Your task to perform on an android device: Open CNN.com Image 0: 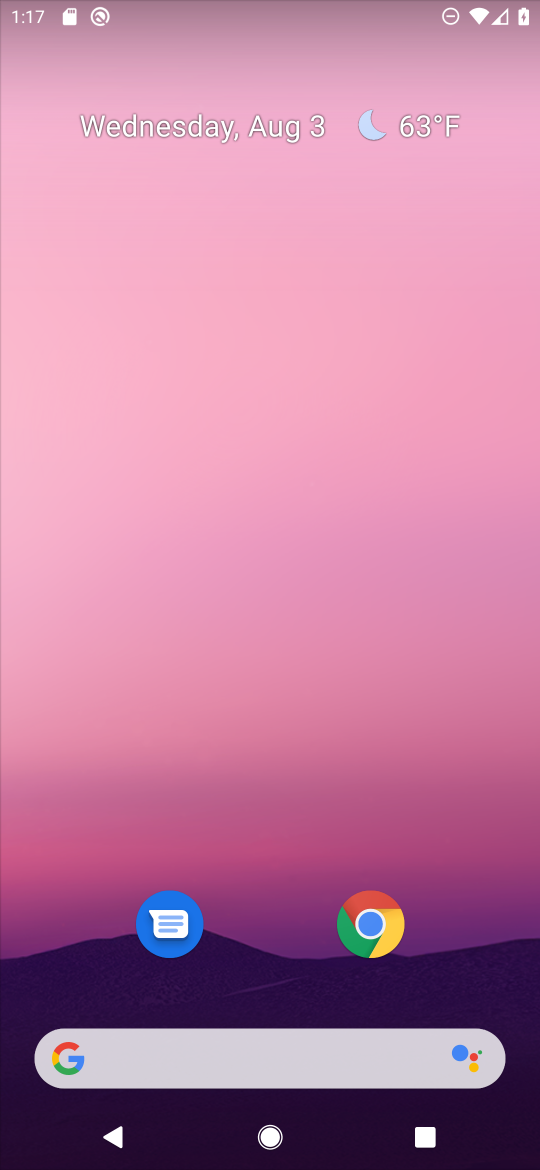
Step 0: click (375, 910)
Your task to perform on an android device: Open CNN.com Image 1: 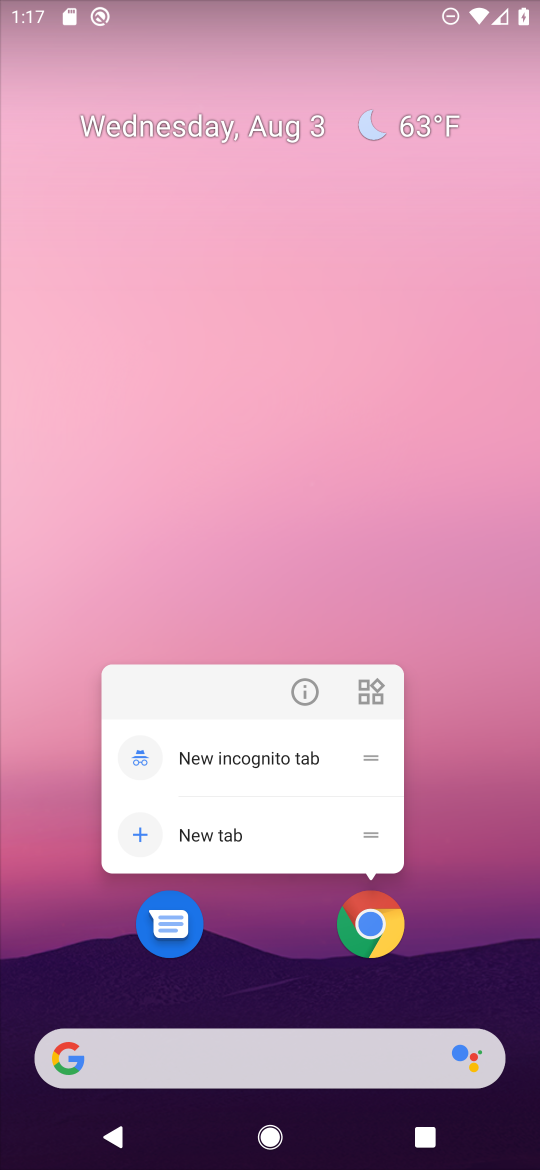
Step 1: click (383, 904)
Your task to perform on an android device: Open CNN.com Image 2: 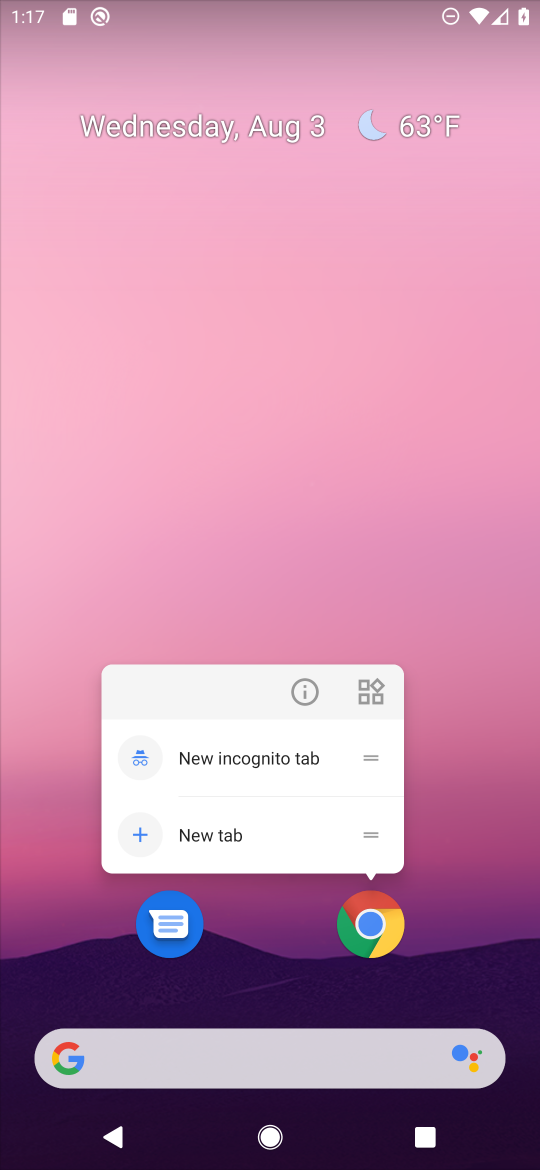
Step 2: click (384, 907)
Your task to perform on an android device: Open CNN.com Image 3: 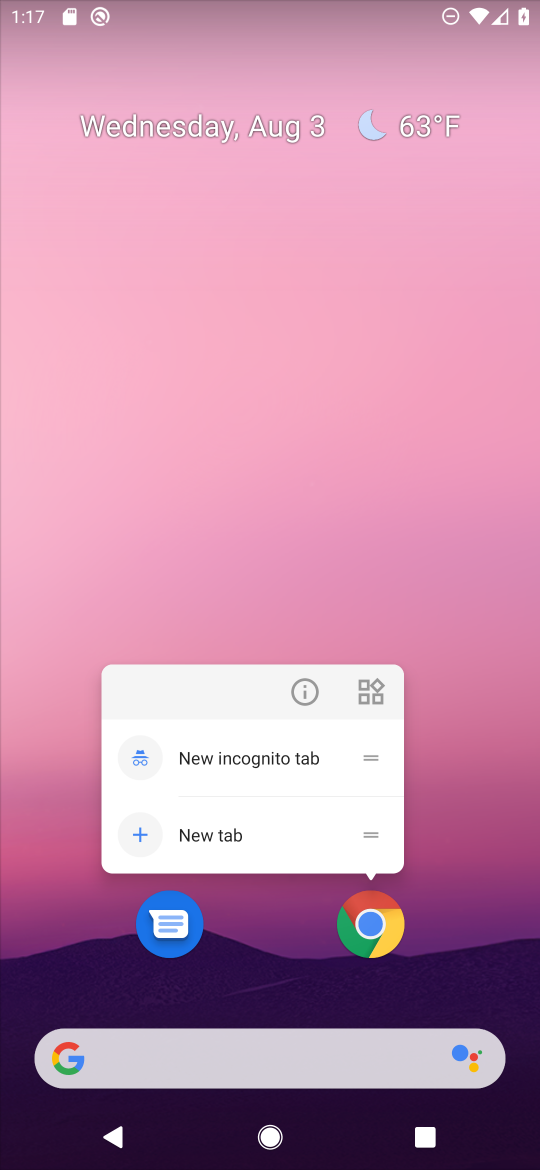
Step 3: click (370, 925)
Your task to perform on an android device: Open CNN.com Image 4: 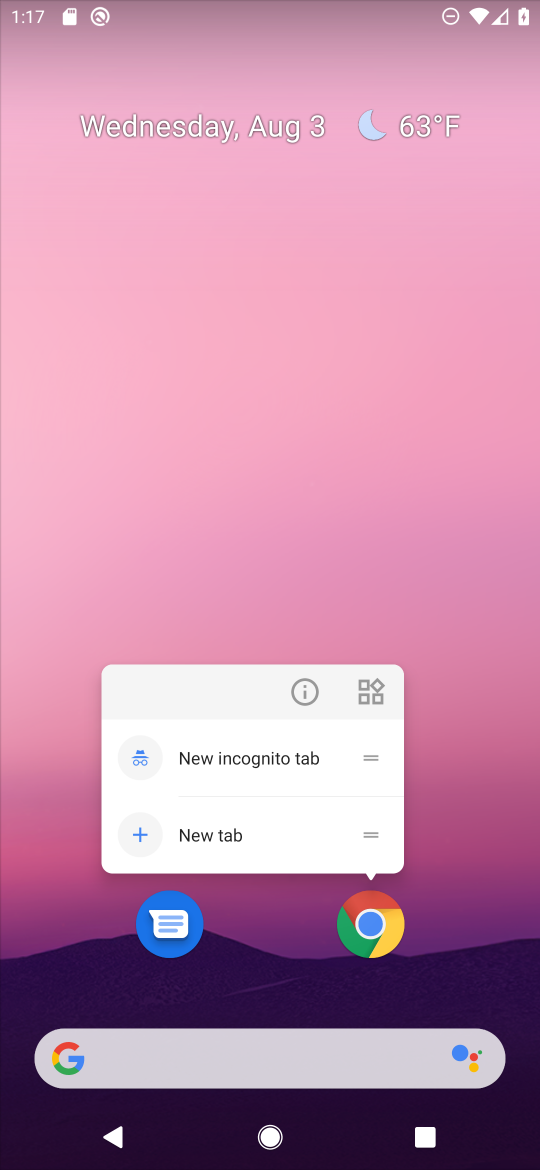
Step 4: click (375, 936)
Your task to perform on an android device: Open CNN.com Image 5: 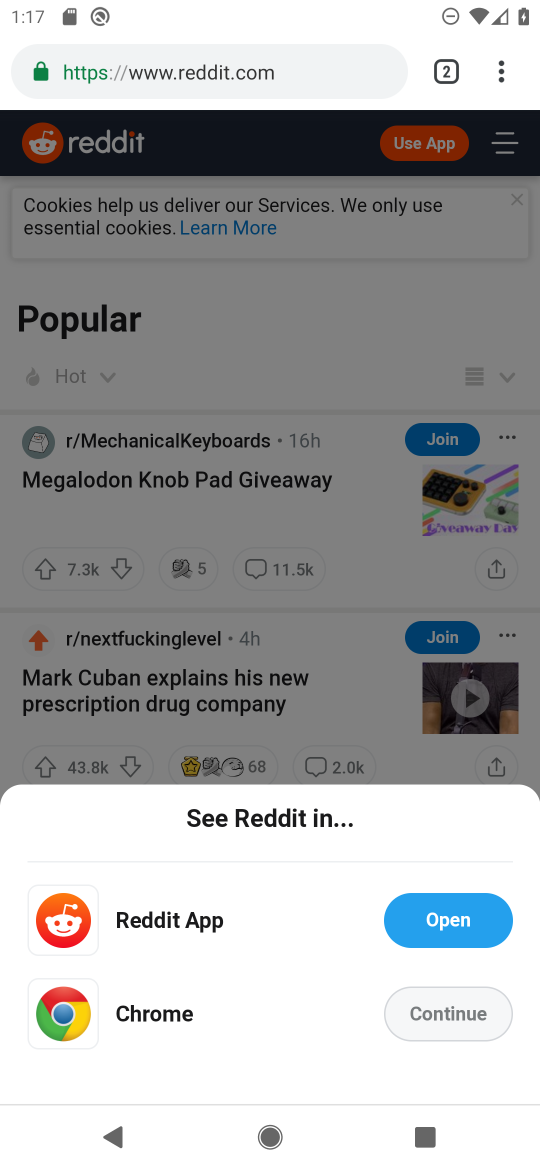
Step 5: click (262, 326)
Your task to perform on an android device: Open CNN.com Image 6: 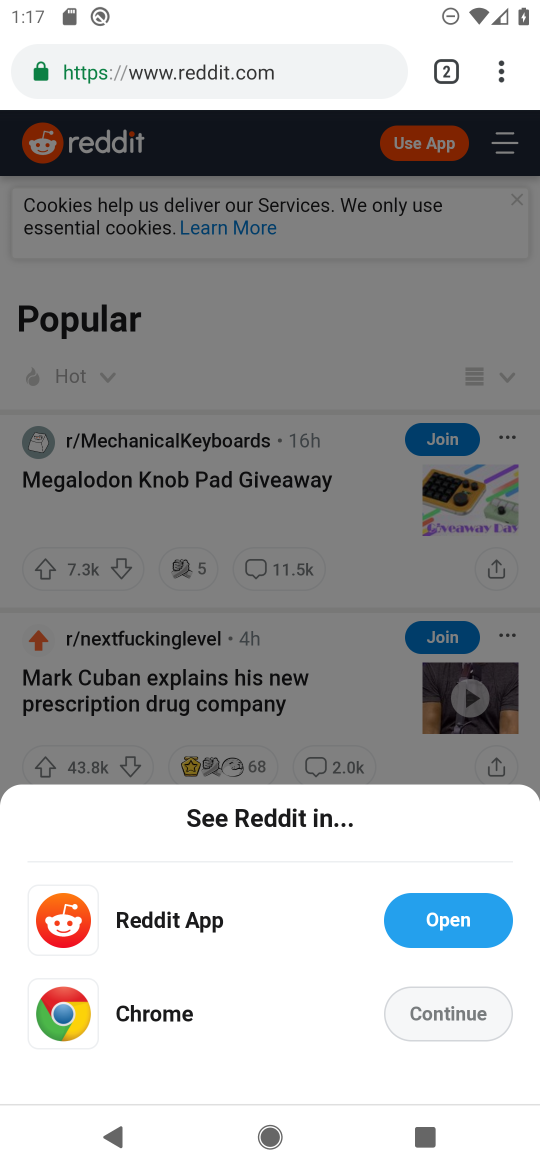
Step 6: click (440, 69)
Your task to perform on an android device: Open CNN.com Image 7: 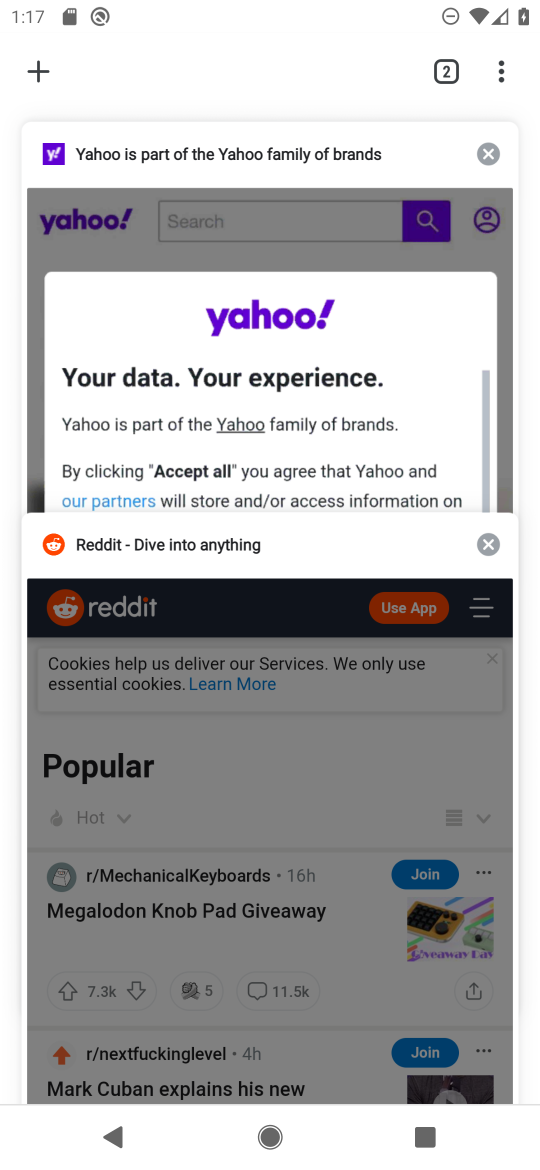
Step 7: click (28, 63)
Your task to perform on an android device: Open CNN.com Image 8: 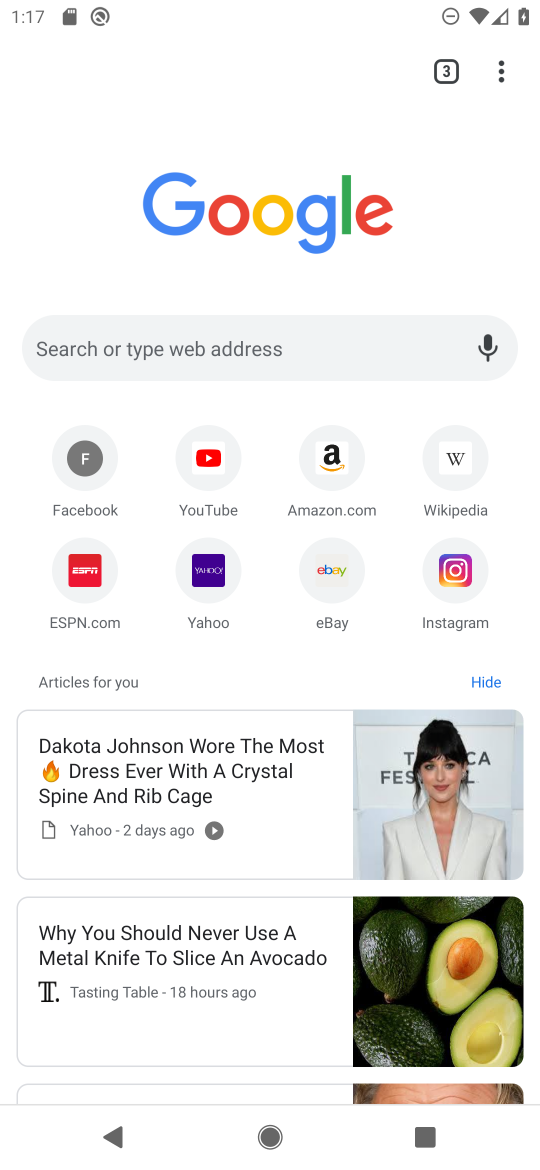
Step 8: click (170, 341)
Your task to perform on an android device: Open CNN.com Image 9: 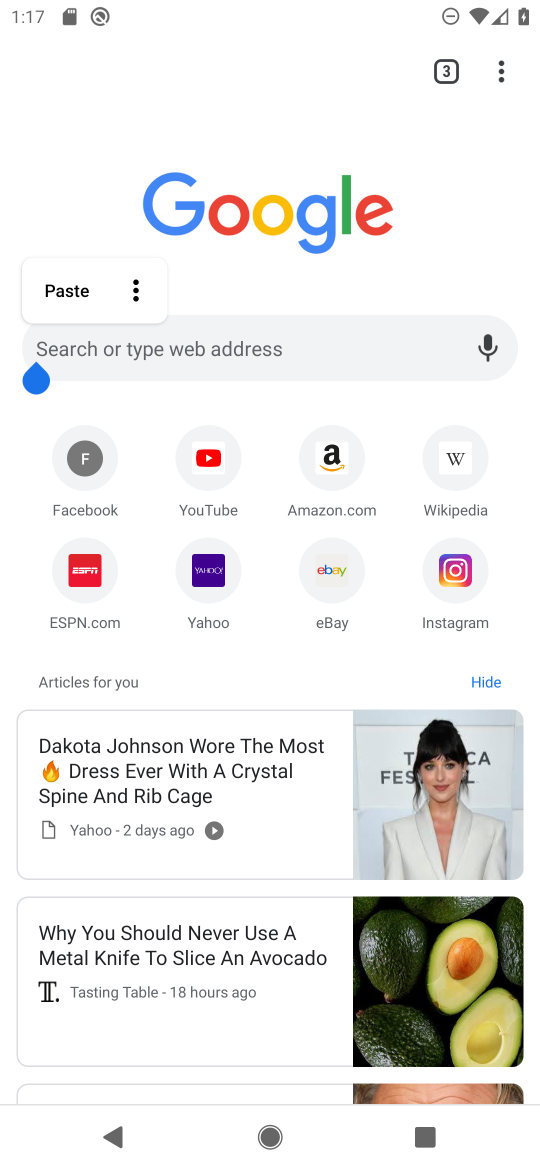
Step 9: type "cnn.com"
Your task to perform on an android device: Open CNN.com Image 10: 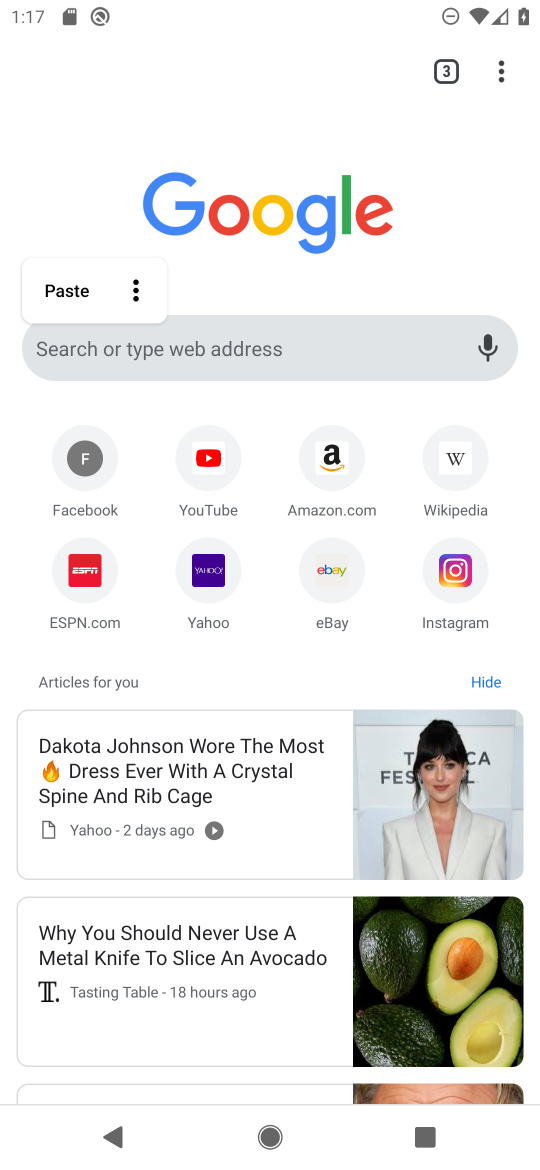
Step 10: click (286, 334)
Your task to perform on an android device: Open CNN.com Image 11: 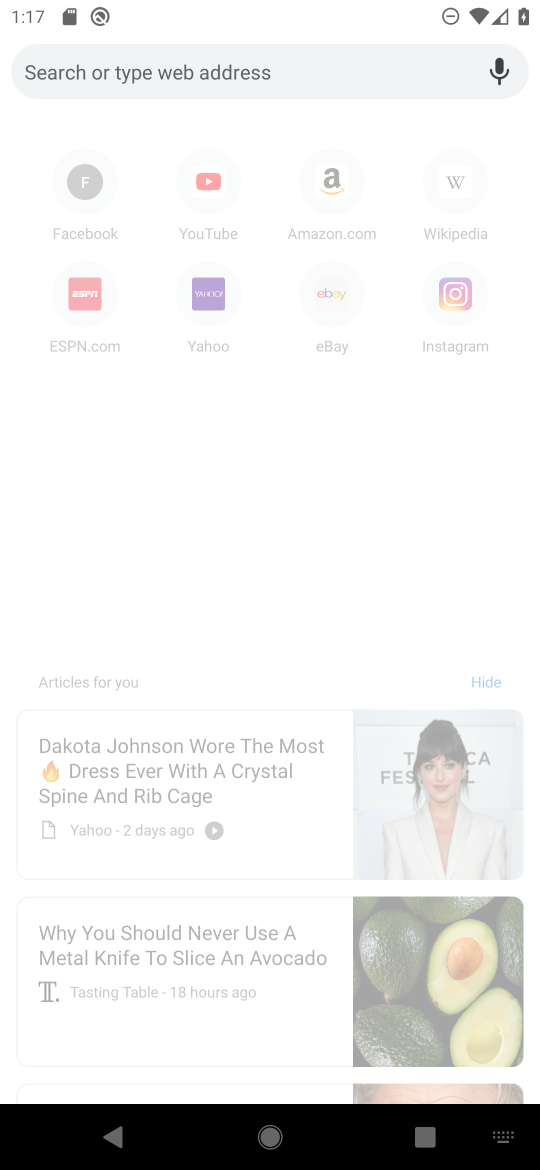
Step 11: type "cnn.com"
Your task to perform on an android device: Open CNN.com Image 12: 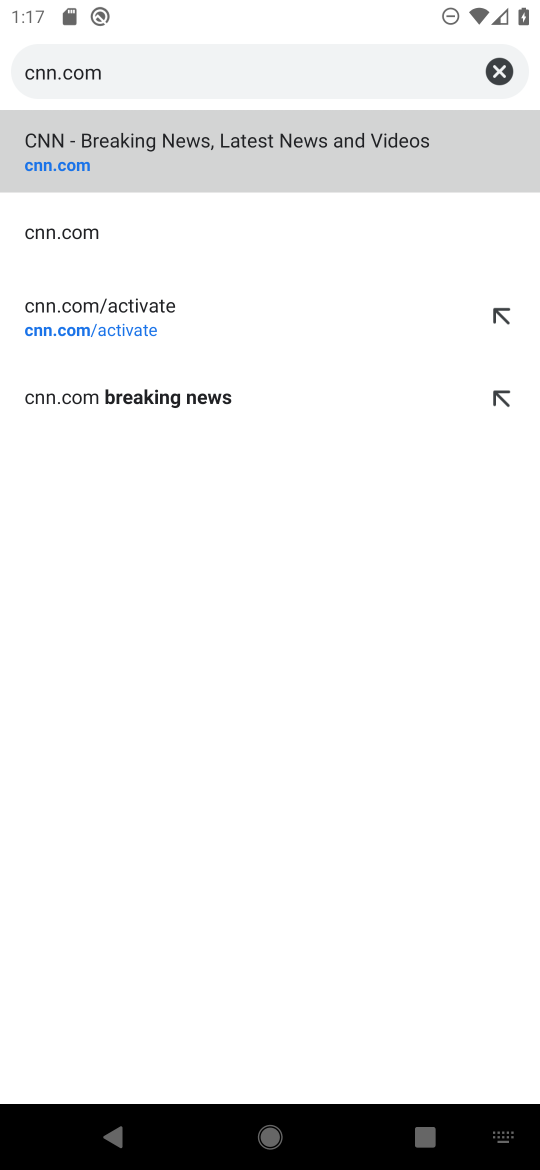
Step 12: click (139, 177)
Your task to perform on an android device: Open CNN.com Image 13: 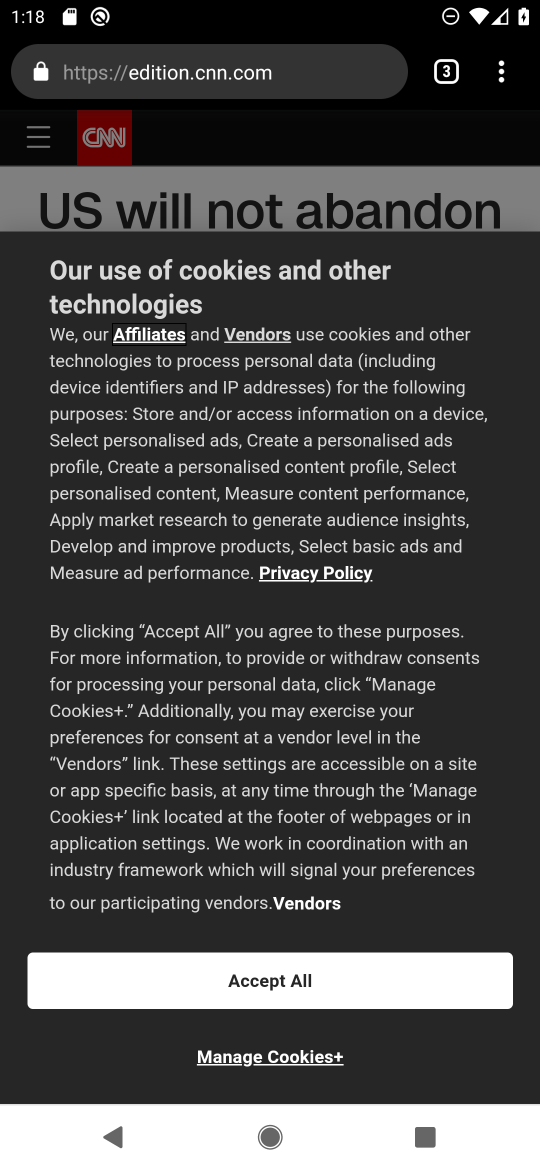
Step 13: task complete